Your task to perform on an android device: Show me popular games on the Play Store Image 0: 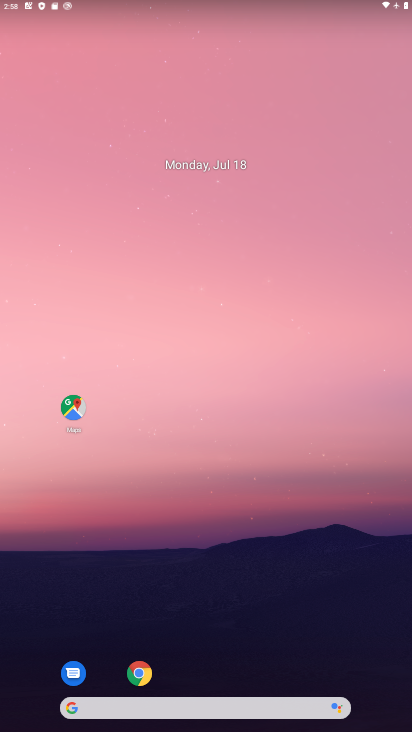
Step 0: drag from (232, 643) to (225, 217)
Your task to perform on an android device: Show me popular games on the Play Store Image 1: 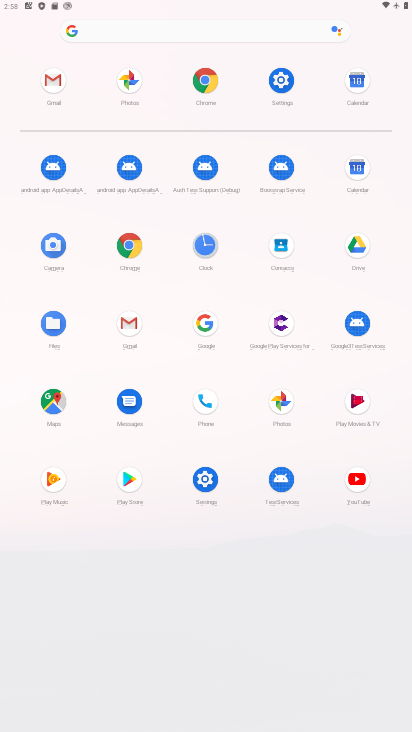
Step 1: click (143, 485)
Your task to perform on an android device: Show me popular games on the Play Store Image 2: 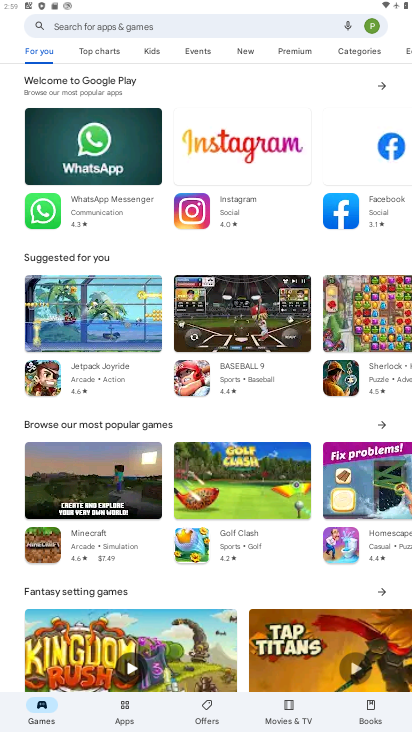
Step 2: task complete